Your task to perform on an android device: open chrome privacy settings Image 0: 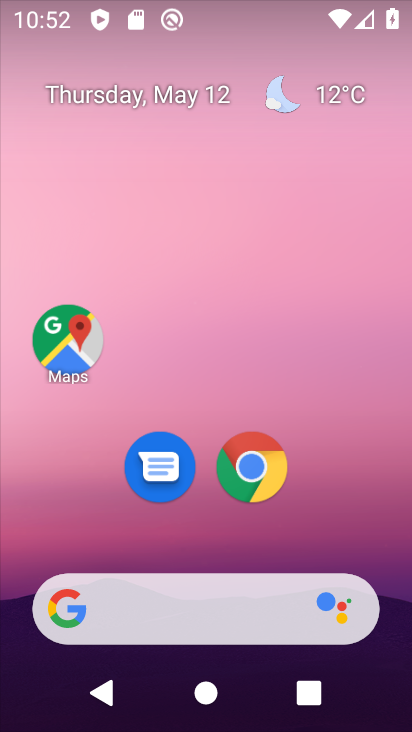
Step 0: click (261, 472)
Your task to perform on an android device: open chrome privacy settings Image 1: 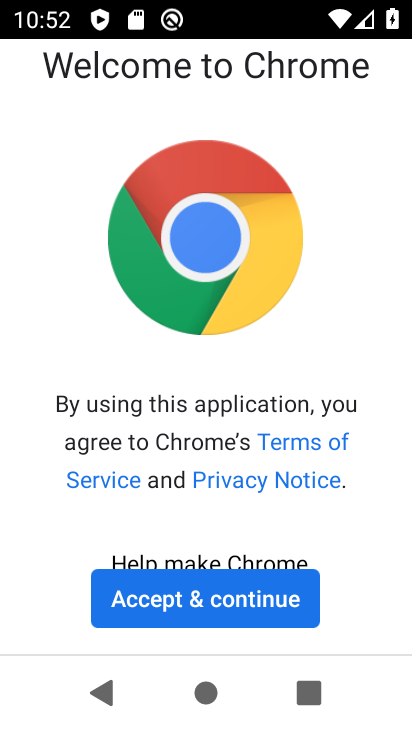
Step 1: click (258, 603)
Your task to perform on an android device: open chrome privacy settings Image 2: 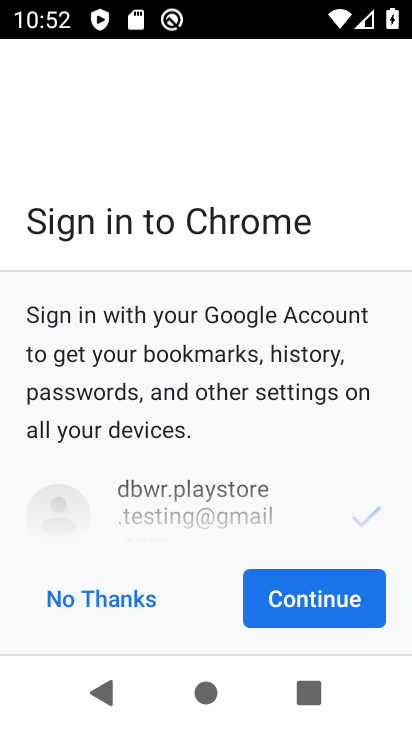
Step 2: click (304, 583)
Your task to perform on an android device: open chrome privacy settings Image 3: 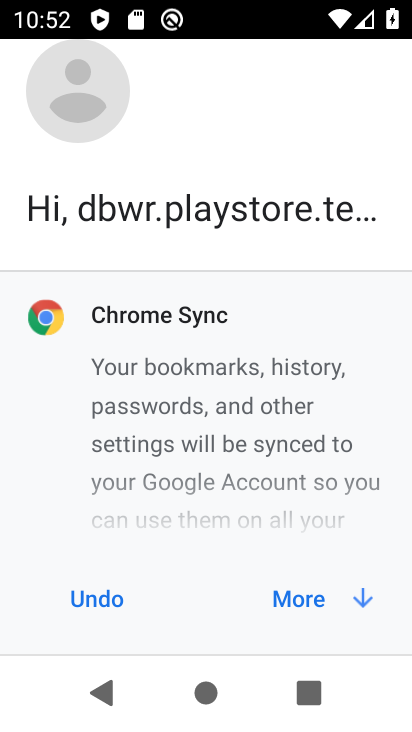
Step 3: click (322, 598)
Your task to perform on an android device: open chrome privacy settings Image 4: 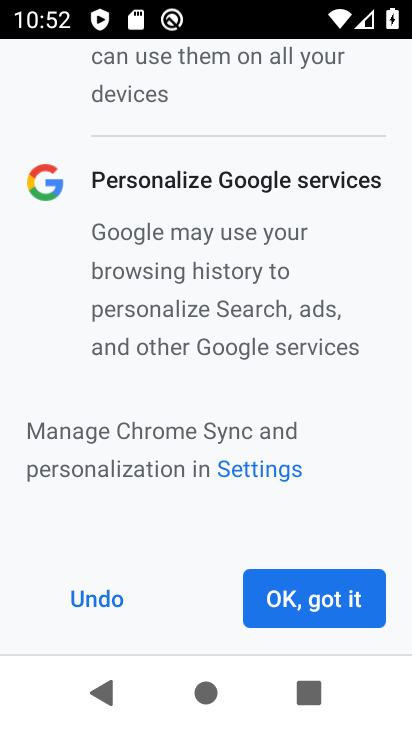
Step 4: click (338, 595)
Your task to perform on an android device: open chrome privacy settings Image 5: 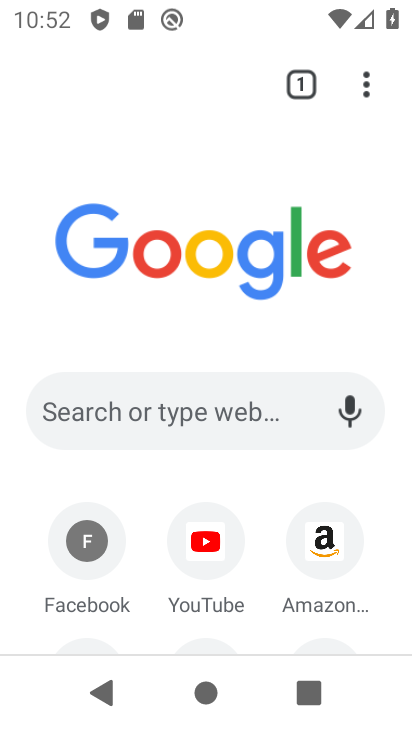
Step 5: click (370, 81)
Your task to perform on an android device: open chrome privacy settings Image 6: 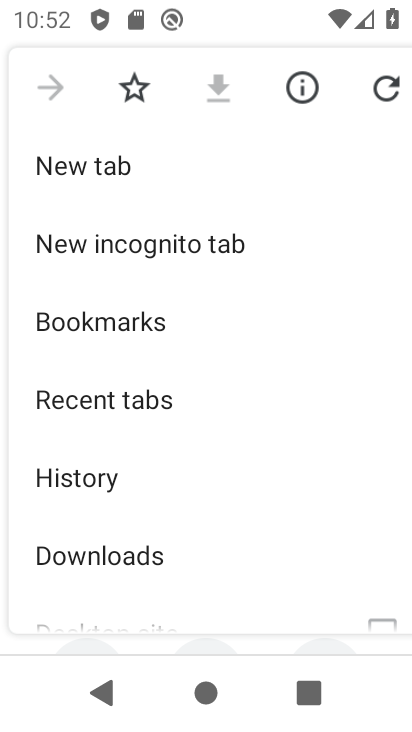
Step 6: click (376, 87)
Your task to perform on an android device: open chrome privacy settings Image 7: 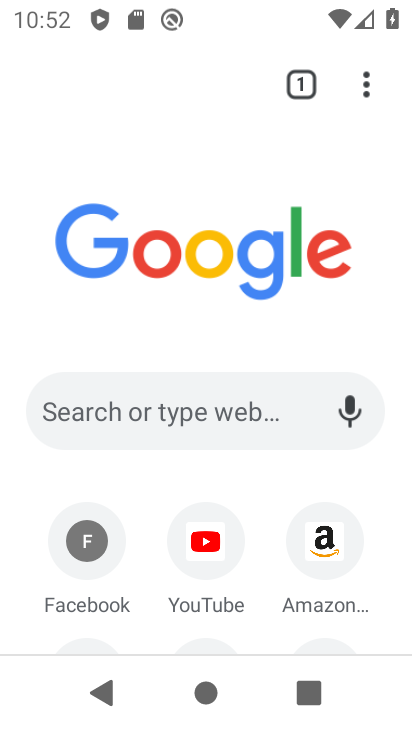
Step 7: click (363, 89)
Your task to perform on an android device: open chrome privacy settings Image 8: 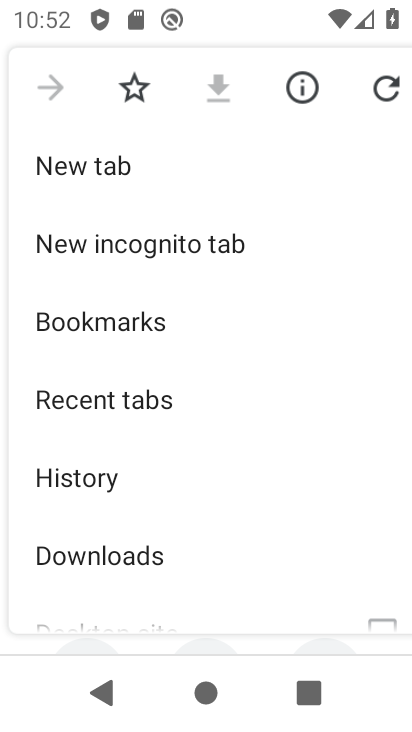
Step 8: drag from (238, 552) to (202, 150)
Your task to perform on an android device: open chrome privacy settings Image 9: 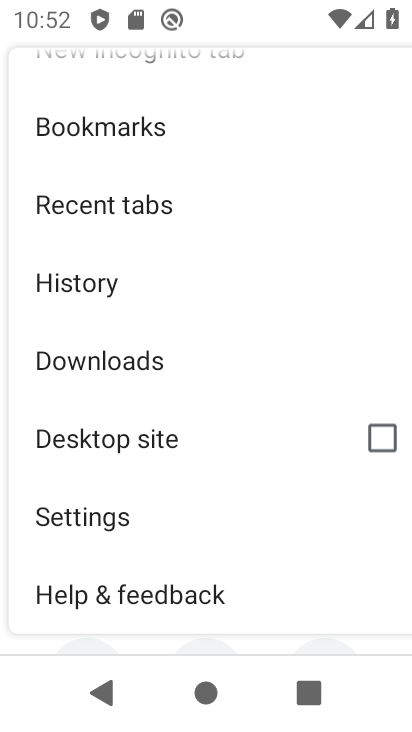
Step 9: click (162, 504)
Your task to perform on an android device: open chrome privacy settings Image 10: 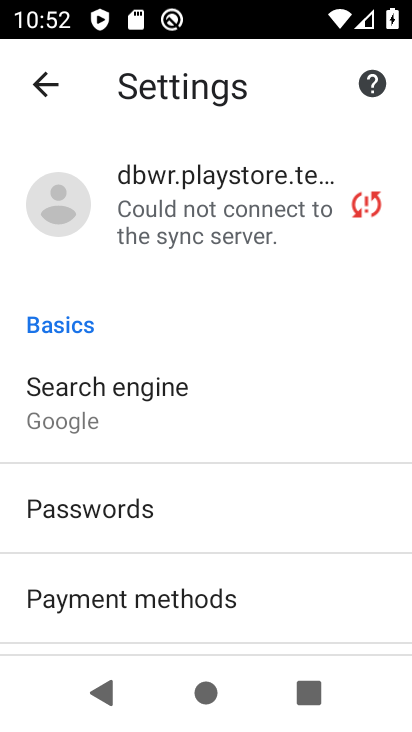
Step 10: drag from (167, 561) to (157, 197)
Your task to perform on an android device: open chrome privacy settings Image 11: 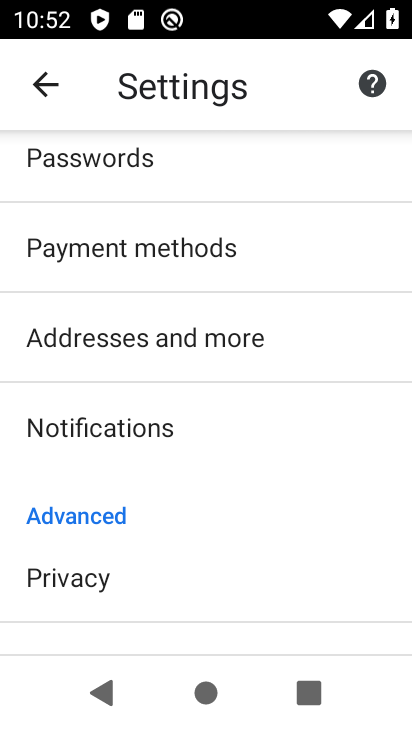
Step 11: click (117, 578)
Your task to perform on an android device: open chrome privacy settings Image 12: 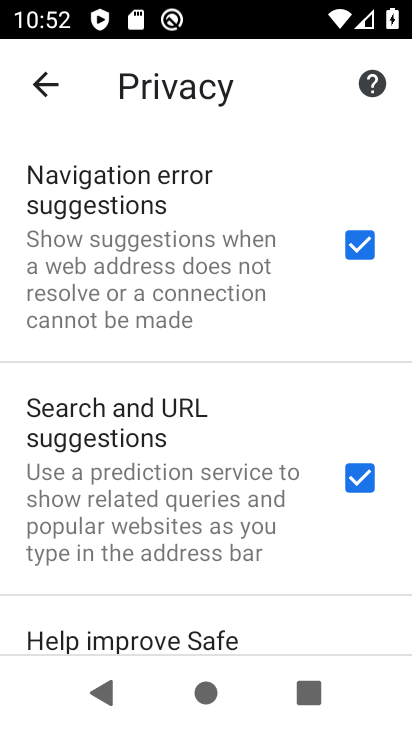
Step 12: task complete